Your task to perform on an android device: Open accessibility settings Image 0: 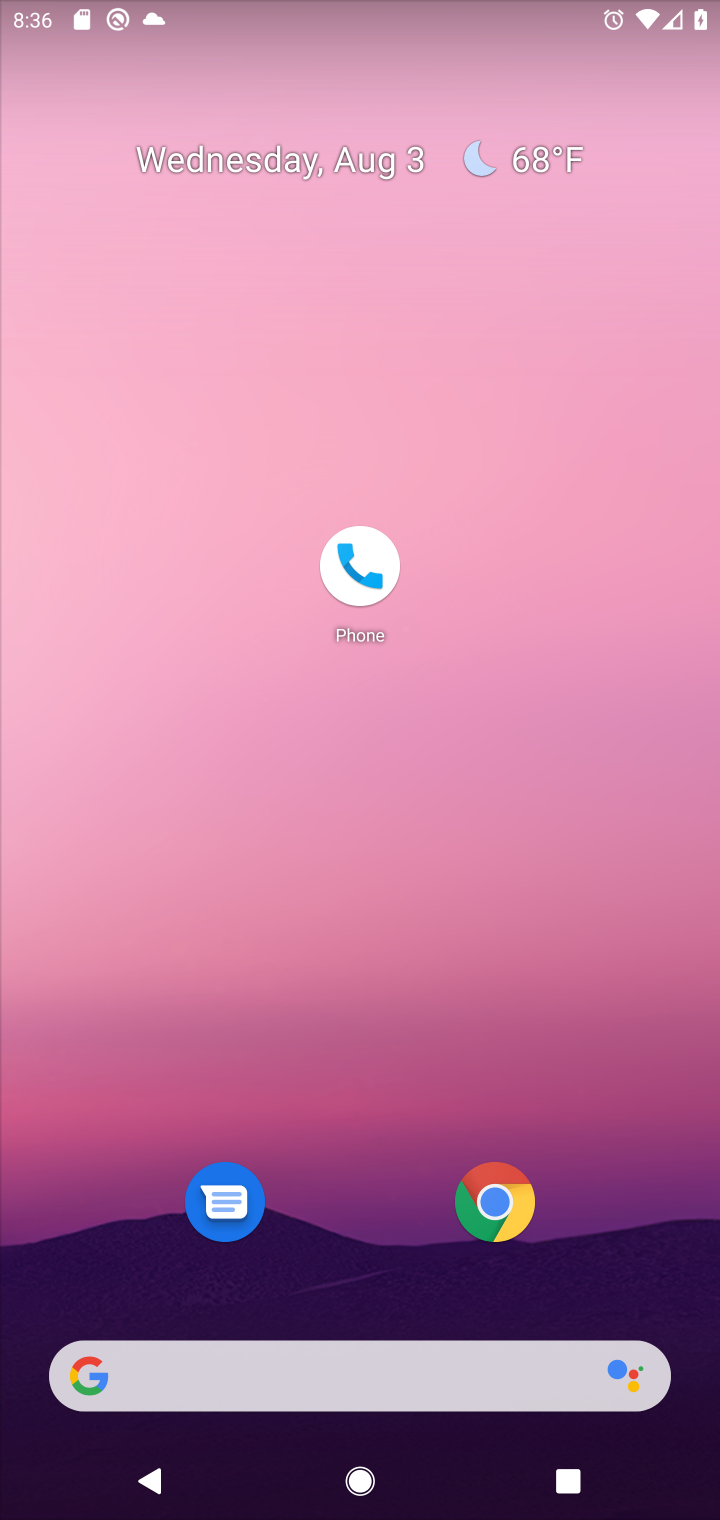
Step 0: drag from (283, 1374) to (397, 254)
Your task to perform on an android device: Open accessibility settings Image 1: 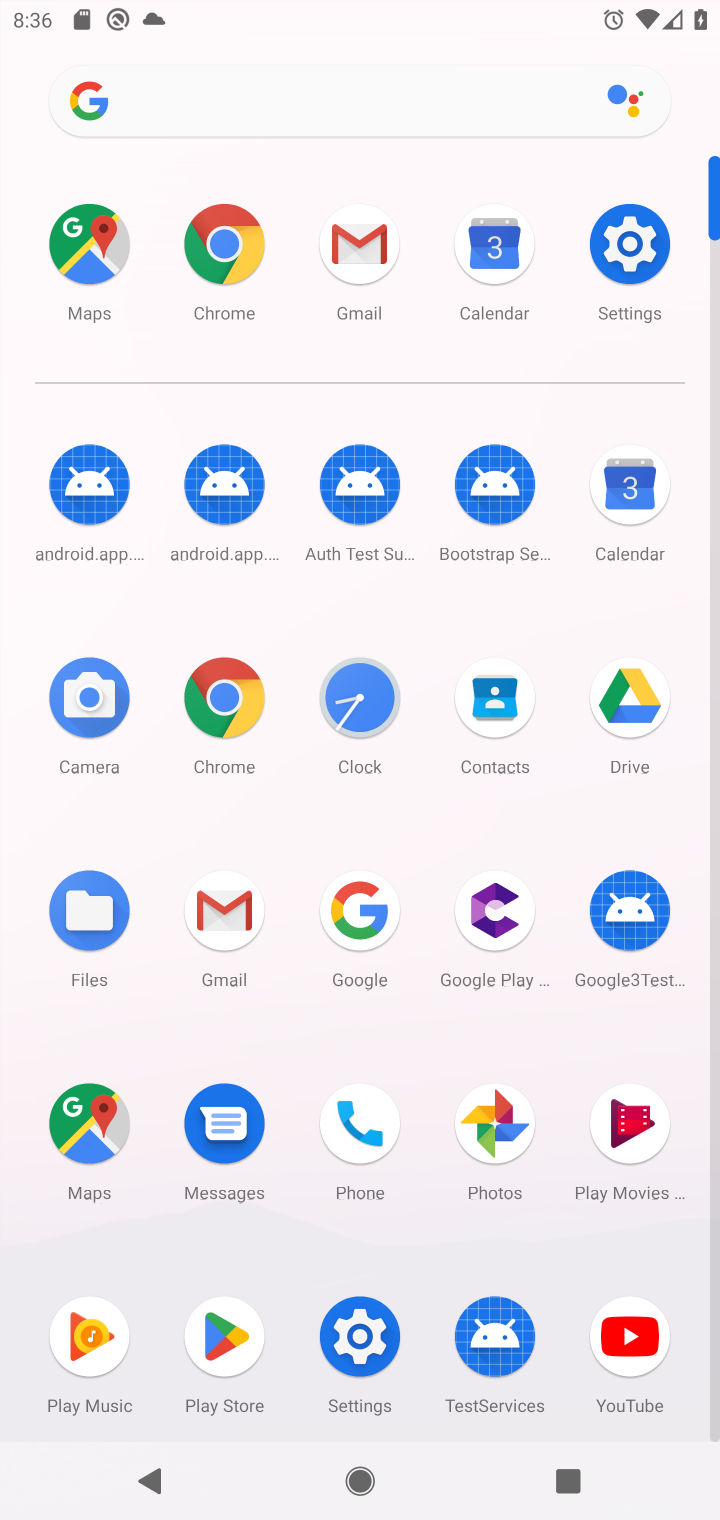
Step 1: click (626, 245)
Your task to perform on an android device: Open accessibility settings Image 2: 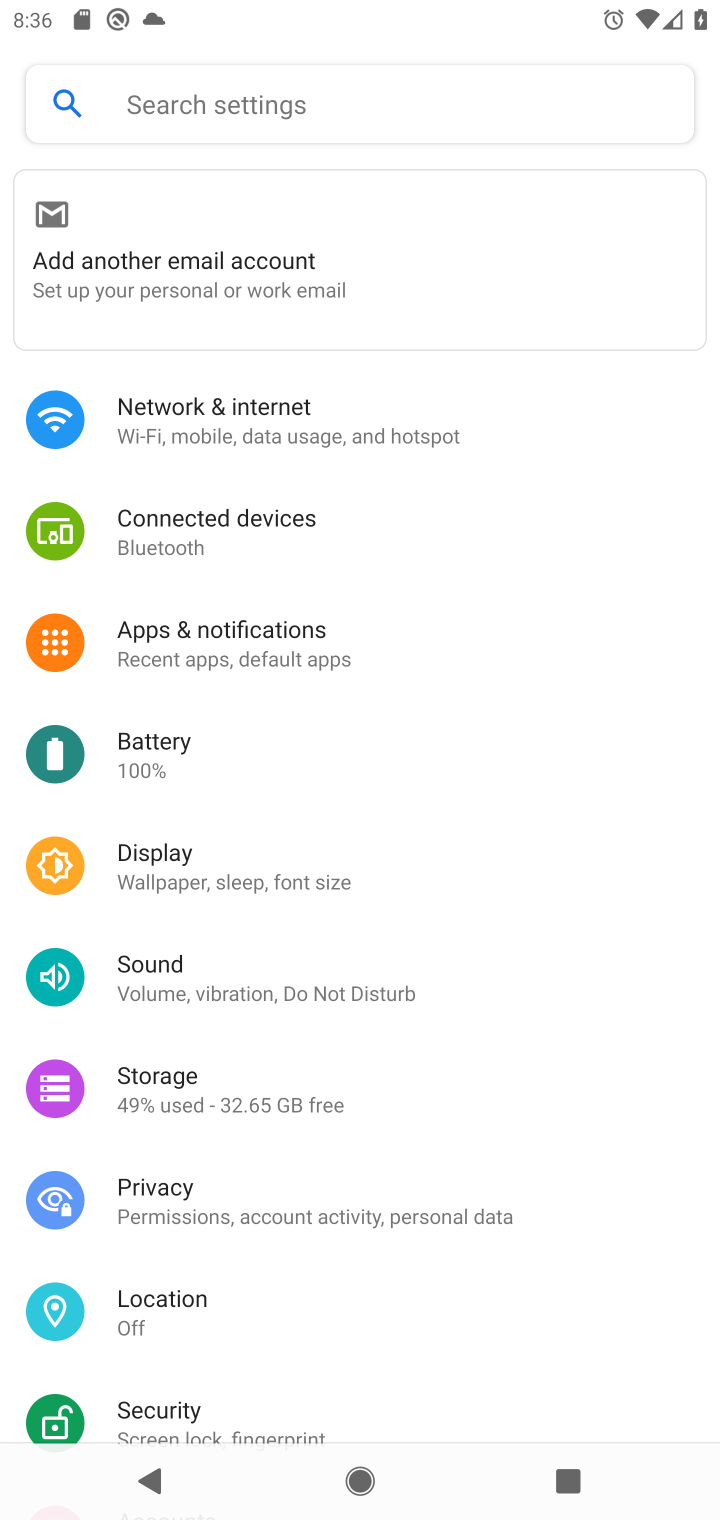
Step 2: drag from (187, 1149) to (248, 658)
Your task to perform on an android device: Open accessibility settings Image 3: 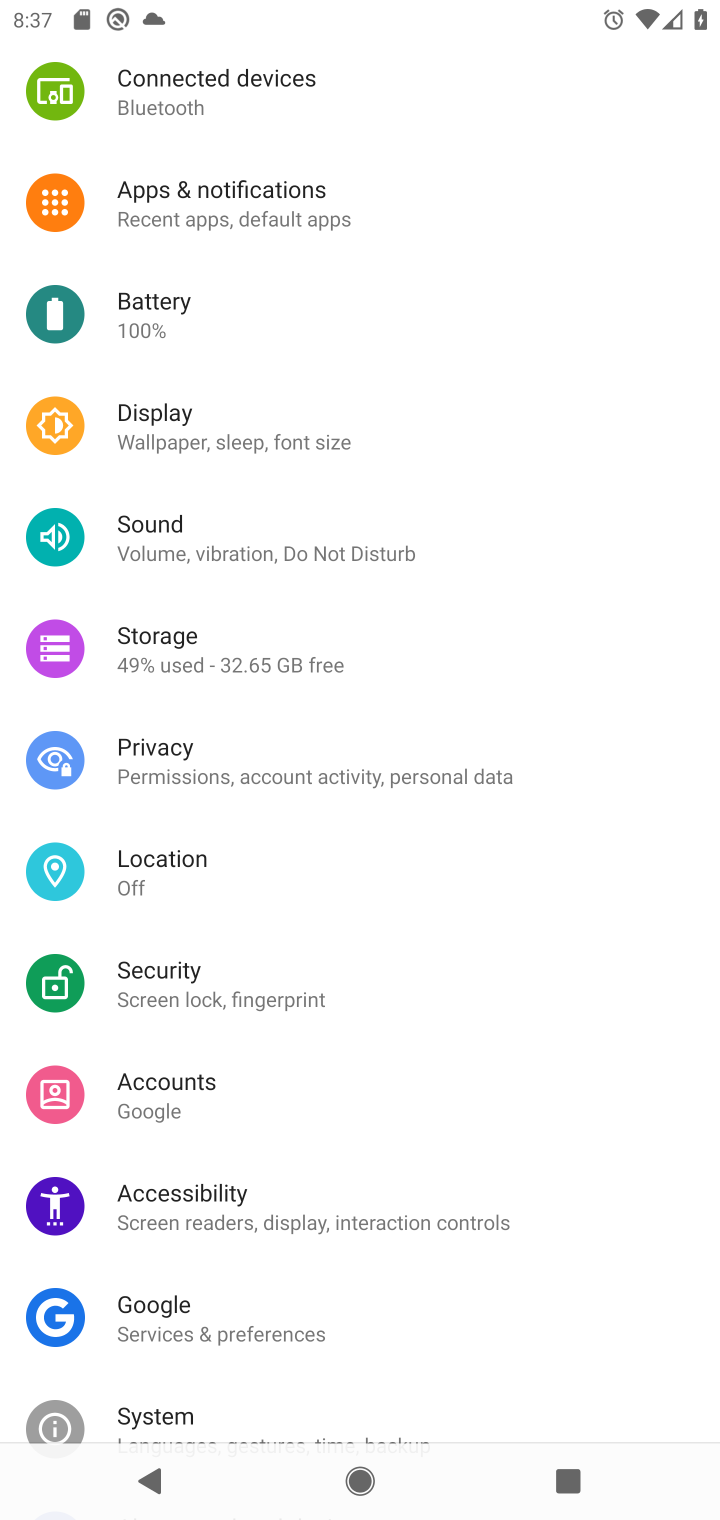
Step 3: click (201, 1203)
Your task to perform on an android device: Open accessibility settings Image 4: 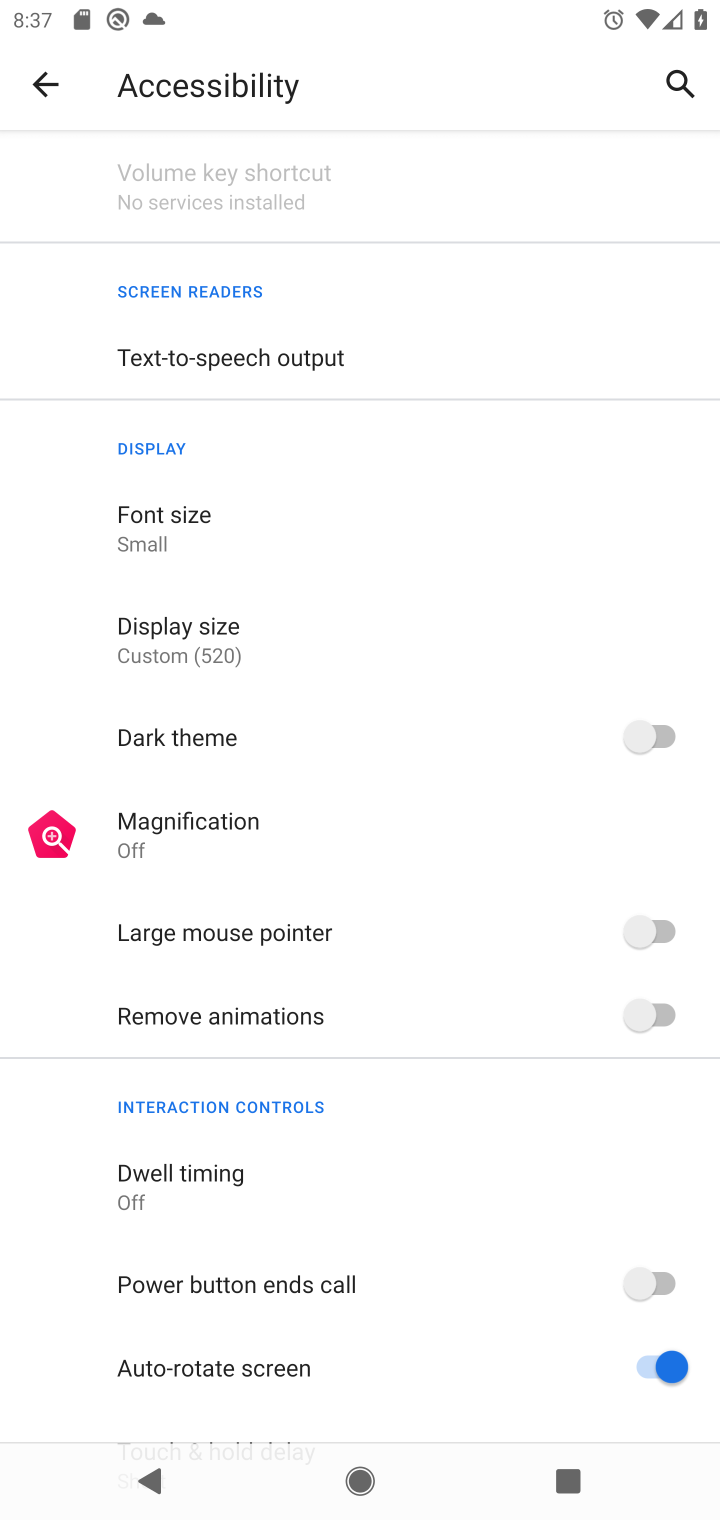
Step 4: task complete